Your task to perform on an android device: toggle translation in the chrome app Image 0: 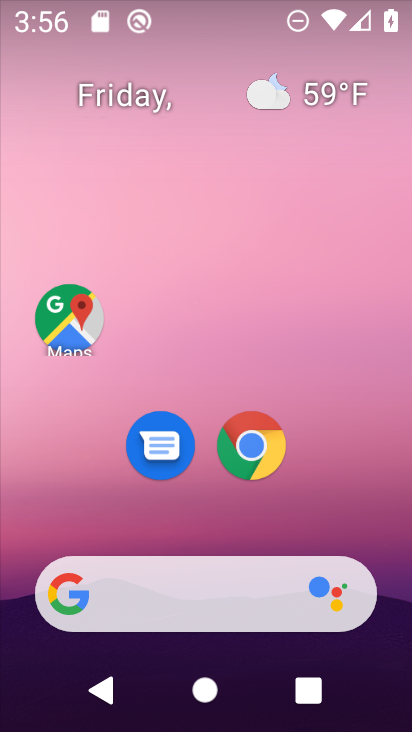
Step 0: click (249, 442)
Your task to perform on an android device: toggle translation in the chrome app Image 1: 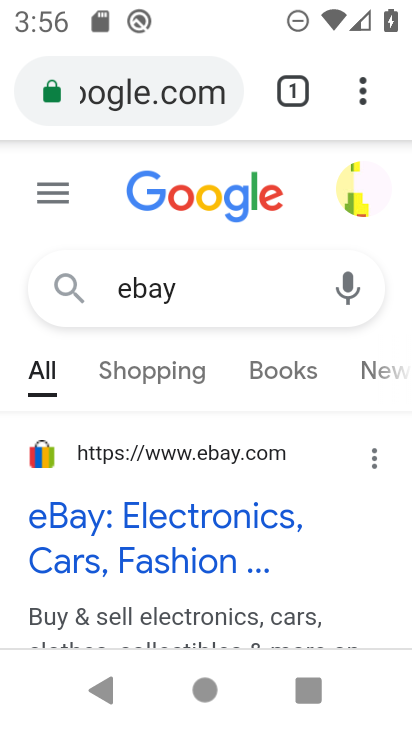
Step 1: click (362, 101)
Your task to perform on an android device: toggle translation in the chrome app Image 2: 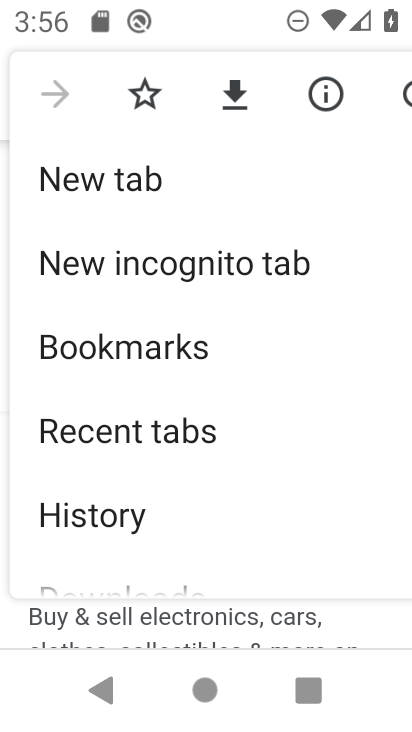
Step 2: drag from (224, 503) to (276, 230)
Your task to perform on an android device: toggle translation in the chrome app Image 3: 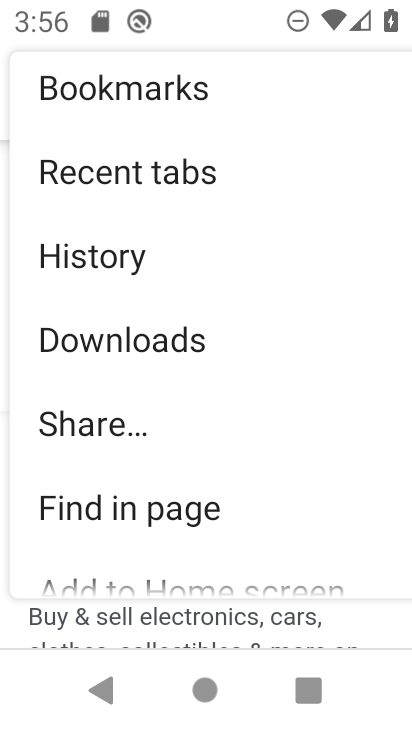
Step 3: drag from (249, 501) to (295, 201)
Your task to perform on an android device: toggle translation in the chrome app Image 4: 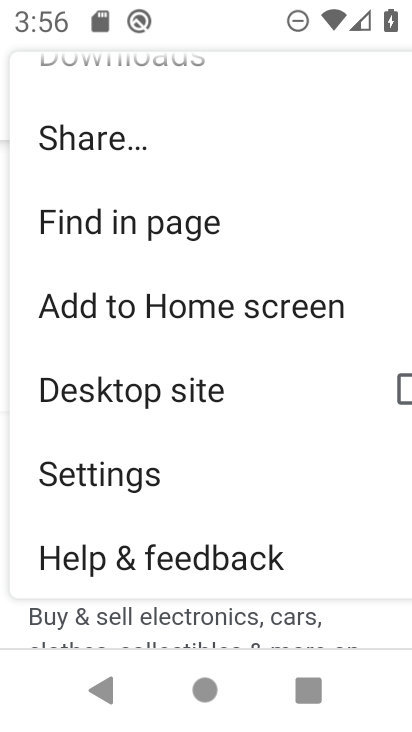
Step 4: click (104, 476)
Your task to perform on an android device: toggle translation in the chrome app Image 5: 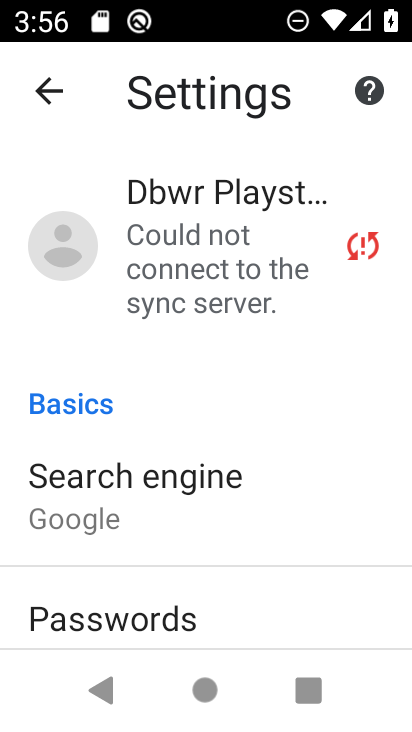
Step 5: drag from (285, 557) to (308, 175)
Your task to perform on an android device: toggle translation in the chrome app Image 6: 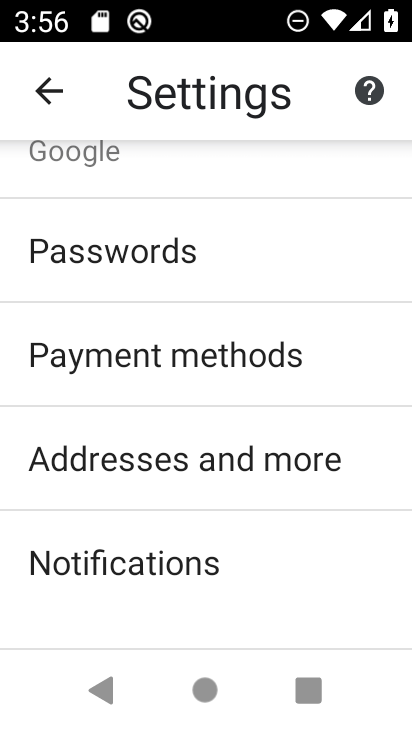
Step 6: drag from (306, 558) to (337, 148)
Your task to perform on an android device: toggle translation in the chrome app Image 7: 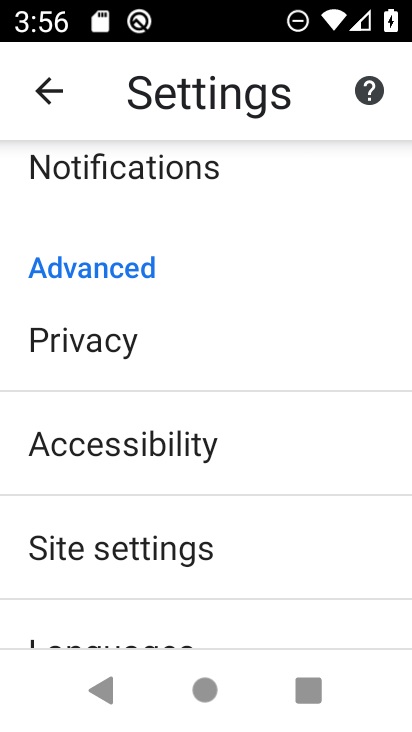
Step 7: drag from (217, 581) to (294, 241)
Your task to perform on an android device: toggle translation in the chrome app Image 8: 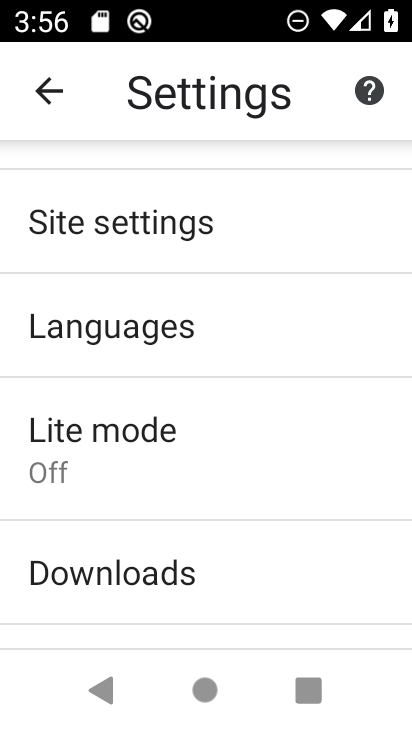
Step 8: click (71, 330)
Your task to perform on an android device: toggle translation in the chrome app Image 9: 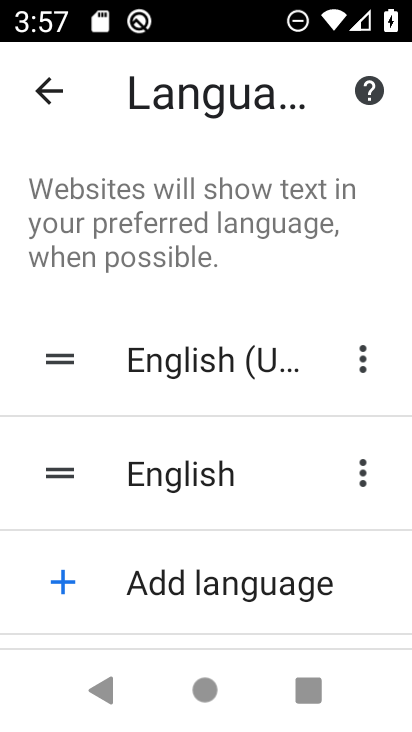
Step 9: drag from (278, 606) to (271, 201)
Your task to perform on an android device: toggle translation in the chrome app Image 10: 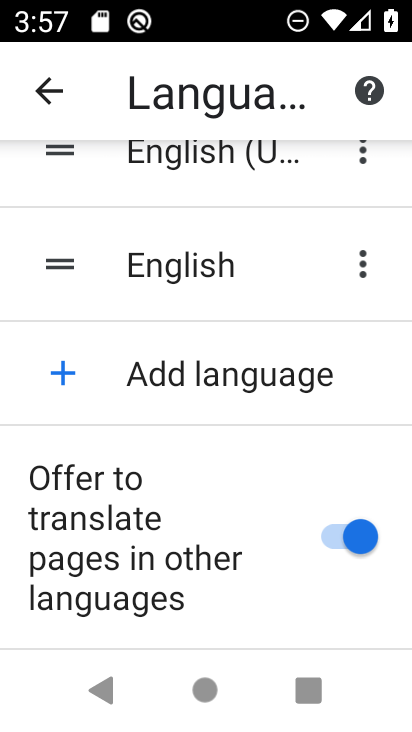
Step 10: click (330, 532)
Your task to perform on an android device: toggle translation in the chrome app Image 11: 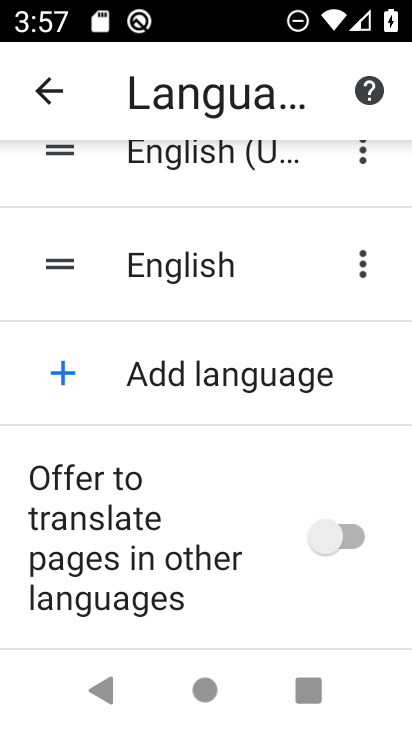
Step 11: task complete